Your task to perform on an android device: Open Chrome and go to settings Image 0: 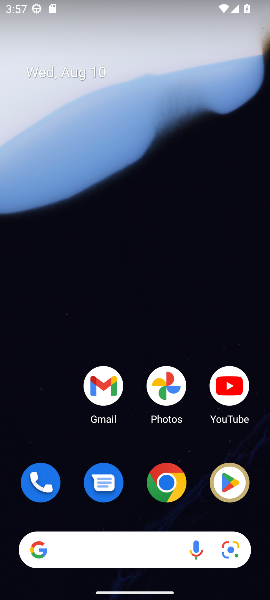
Step 0: click (170, 481)
Your task to perform on an android device: Open Chrome and go to settings Image 1: 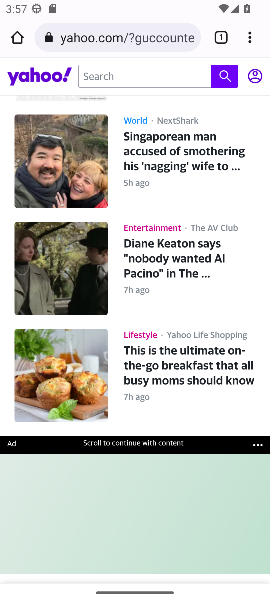
Step 1: click (251, 42)
Your task to perform on an android device: Open Chrome and go to settings Image 2: 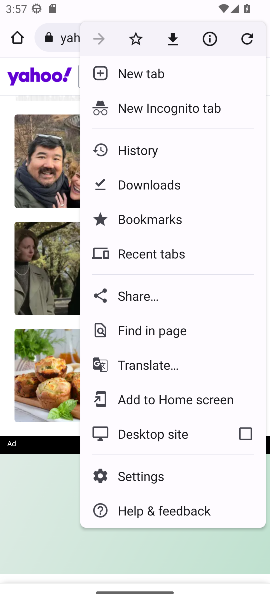
Step 2: click (146, 472)
Your task to perform on an android device: Open Chrome and go to settings Image 3: 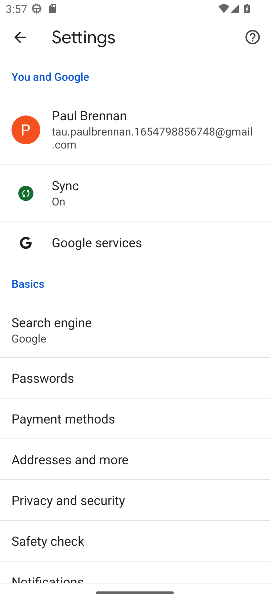
Step 3: task complete